Your task to perform on an android device: find snoozed emails in the gmail app Image 0: 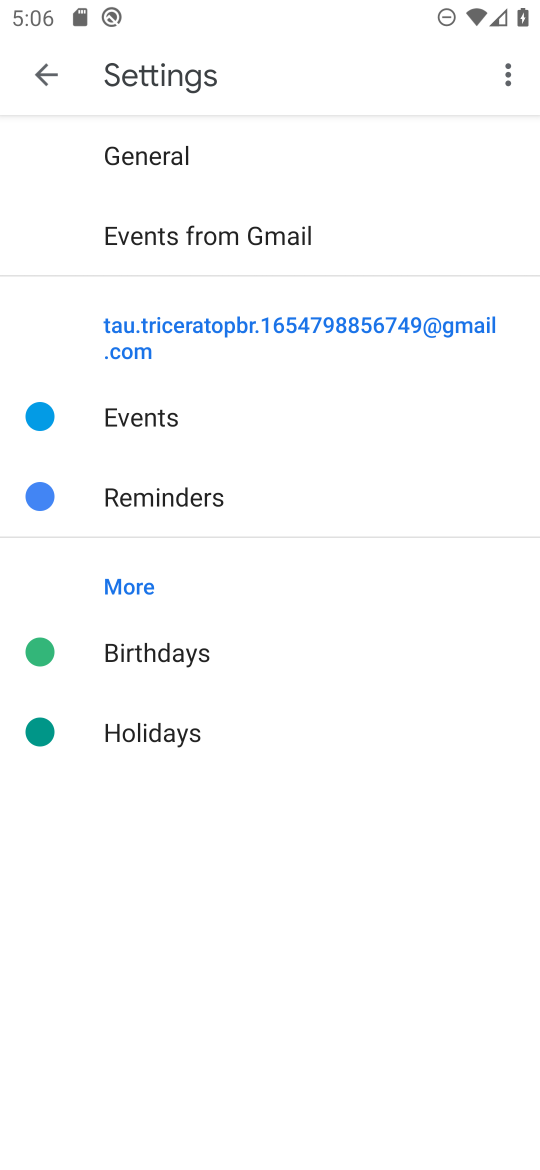
Step 0: press home button
Your task to perform on an android device: find snoozed emails in the gmail app Image 1: 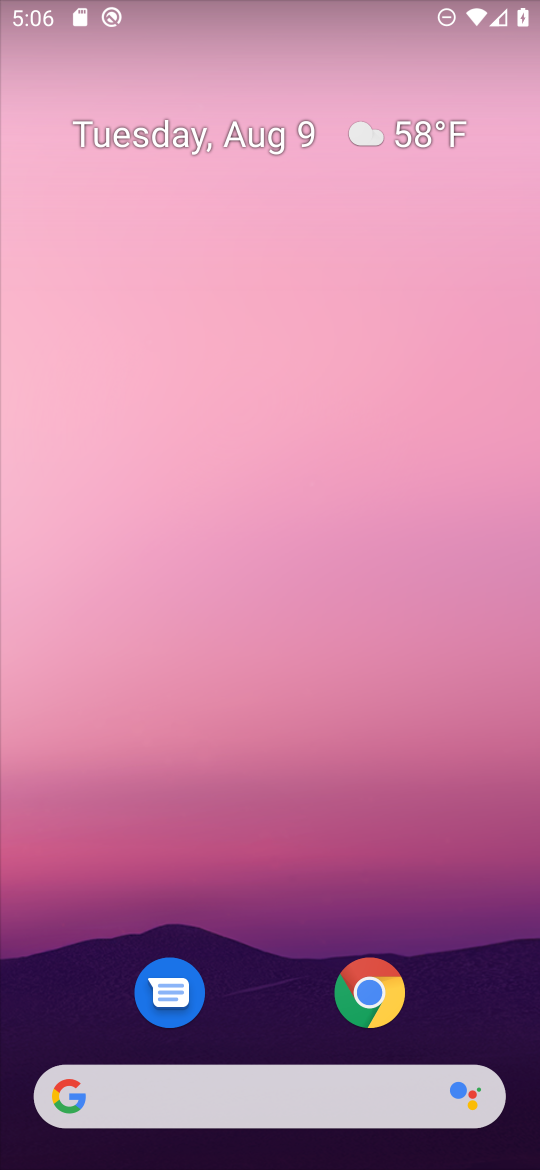
Step 1: press home button
Your task to perform on an android device: find snoozed emails in the gmail app Image 2: 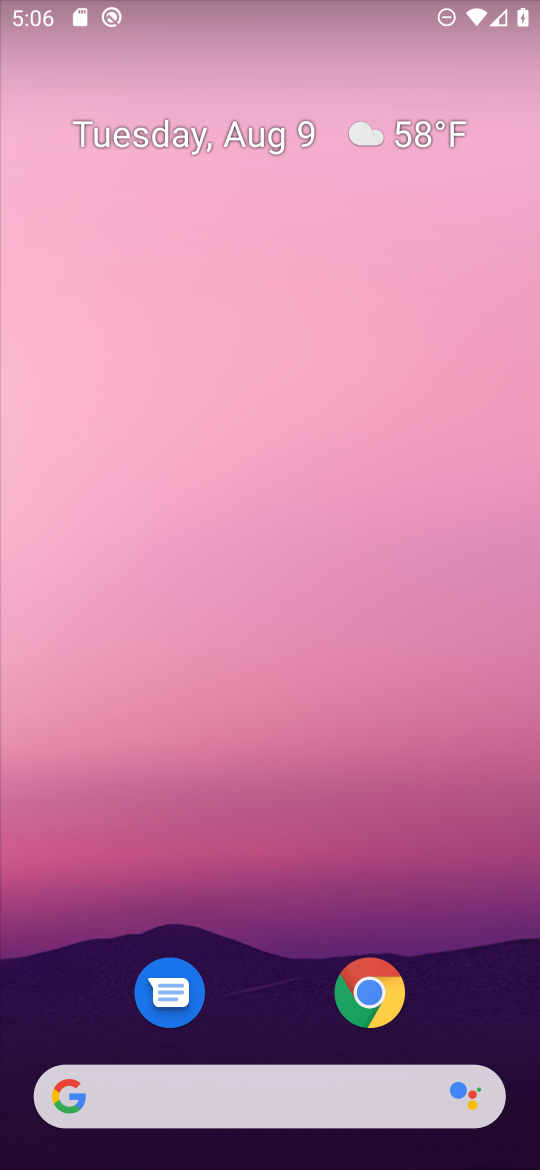
Step 2: drag from (417, 1080) to (412, 957)
Your task to perform on an android device: find snoozed emails in the gmail app Image 3: 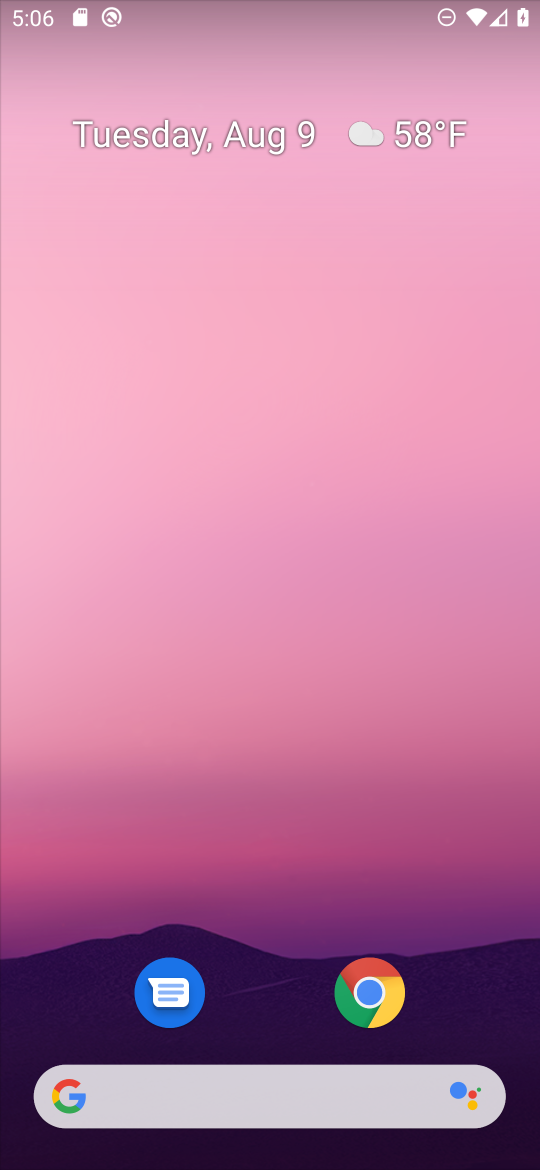
Step 3: drag from (302, 1078) to (263, 18)
Your task to perform on an android device: find snoozed emails in the gmail app Image 4: 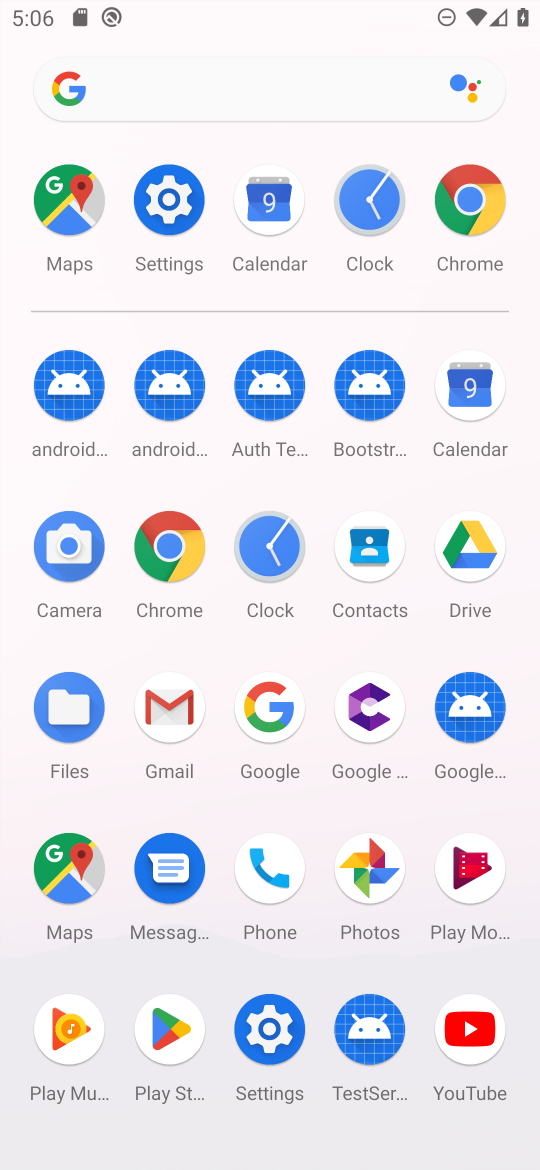
Step 4: drag from (233, 1069) to (504, 64)
Your task to perform on an android device: find snoozed emails in the gmail app Image 5: 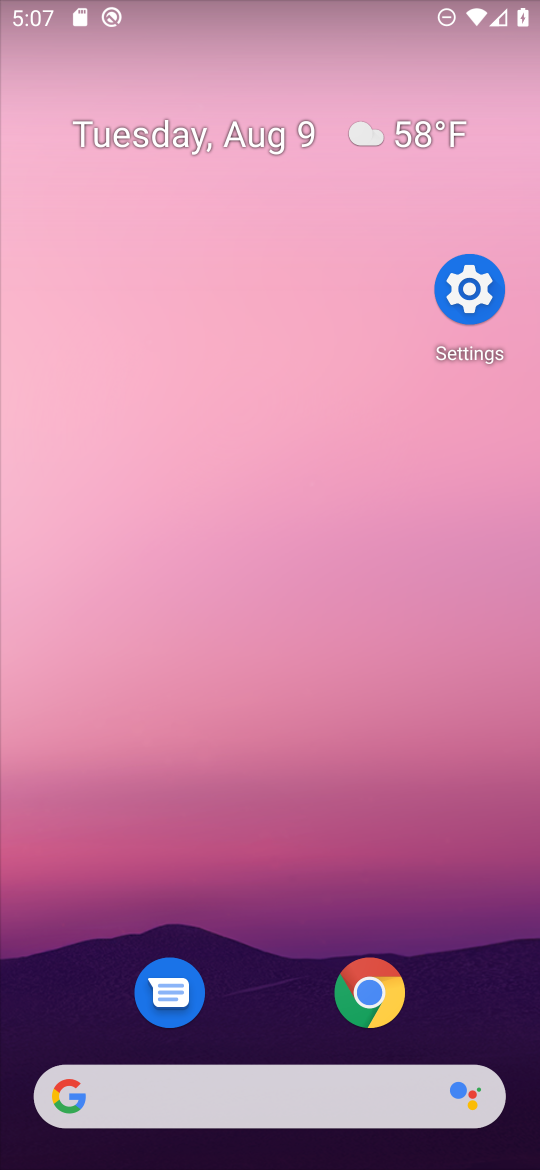
Step 5: drag from (369, 1082) to (287, 174)
Your task to perform on an android device: find snoozed emails in the gmail app Image 6: 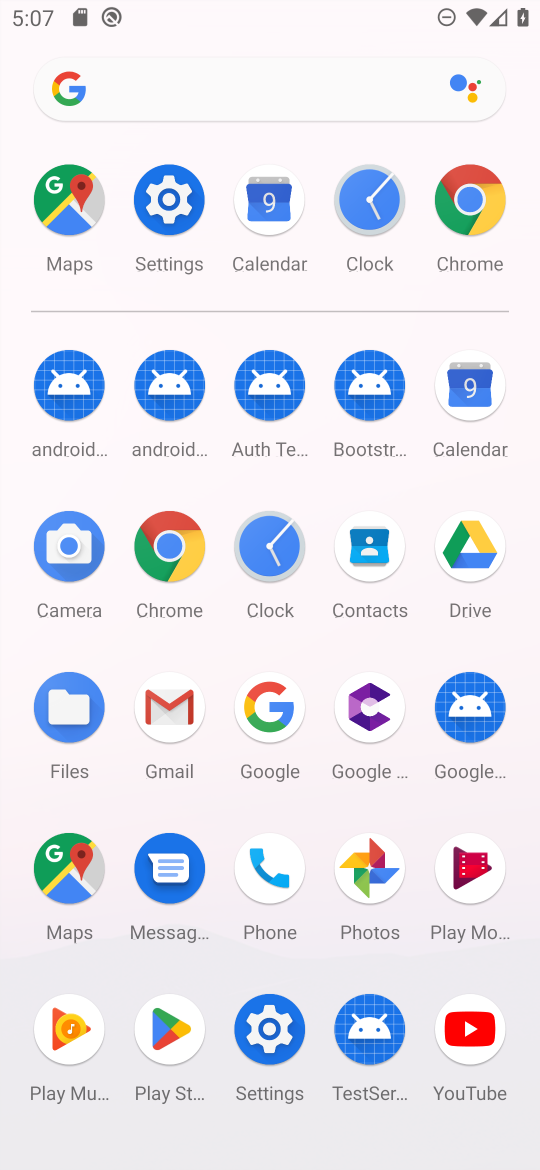
Step 6: click (164, 719)
Your task to perform on an android device: find snoozed emails in the gmail app Image 7: 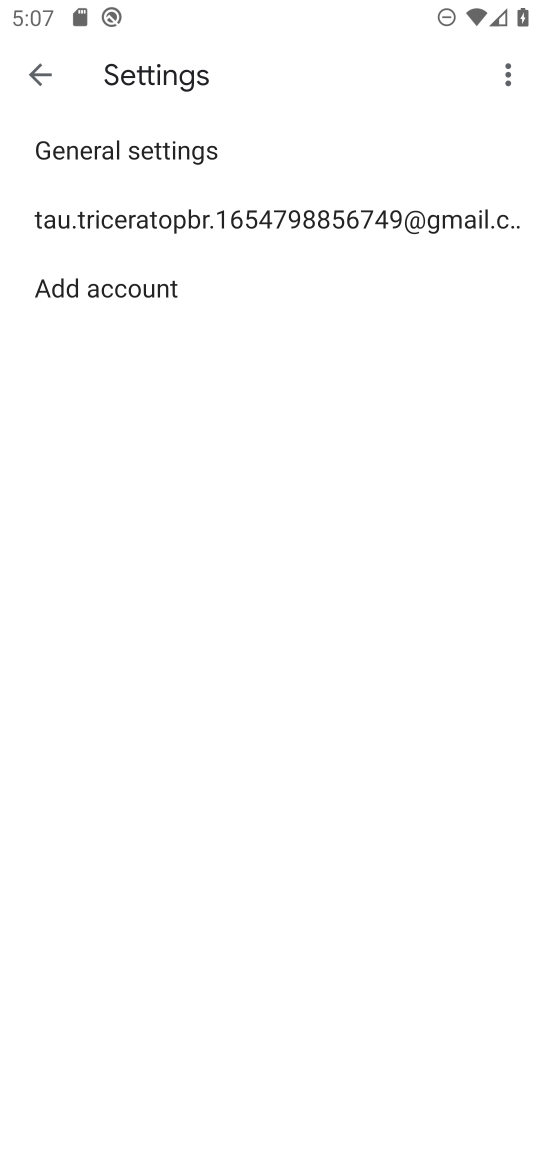
Step 7: click (236, 219)
Your task to perform on an android device: find snoozed emails in the gmail app Image 8: 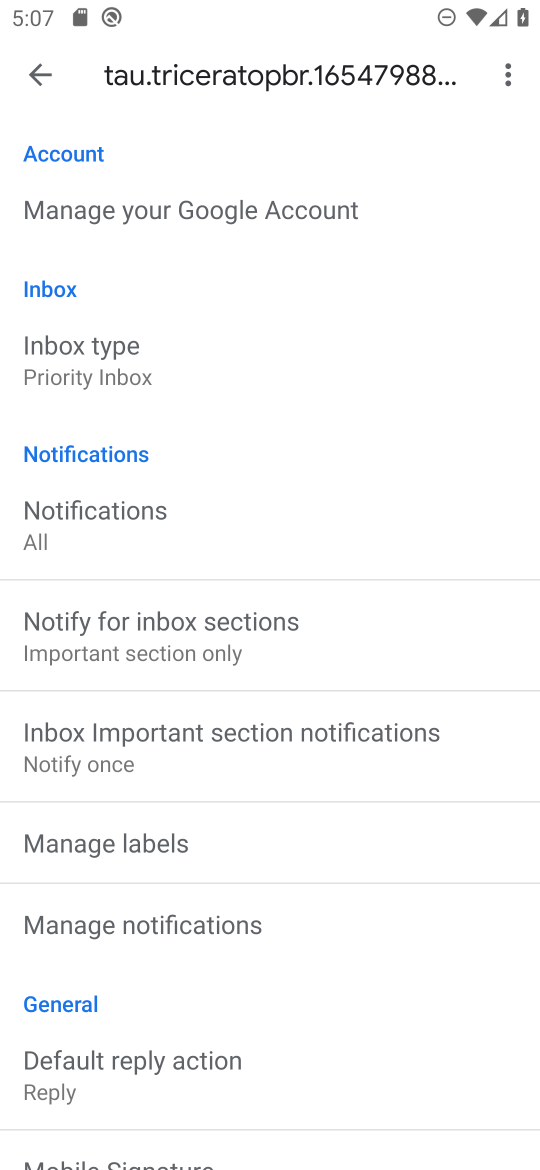
Step 8: press back button
Your task to perform on an android device: find snoozed emails in the gmail app Image 9: 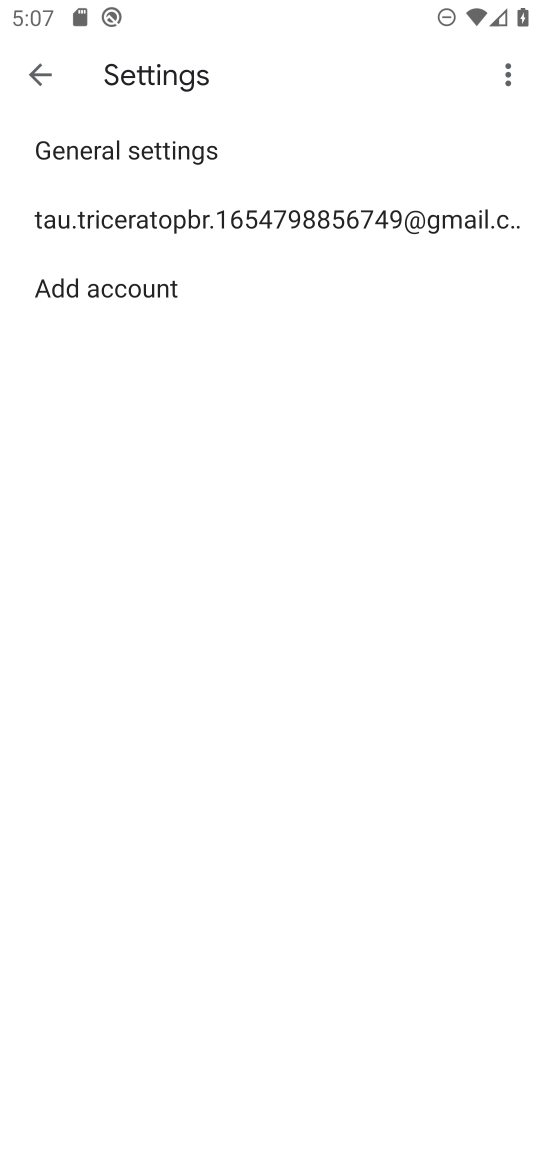
Step 9: press back button
Your task to perform on an android device: find snoozed emails in the gmail app Image 10: 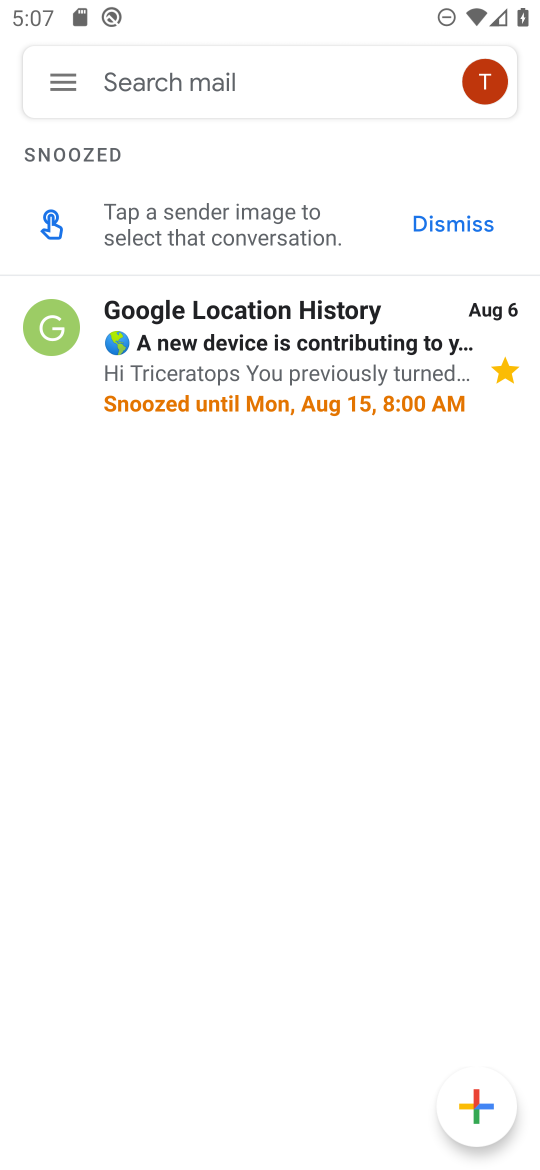
Step 10: click (61, 83)
Your task to perform on an android device: find snoozed emails in the gmail app Image 11: 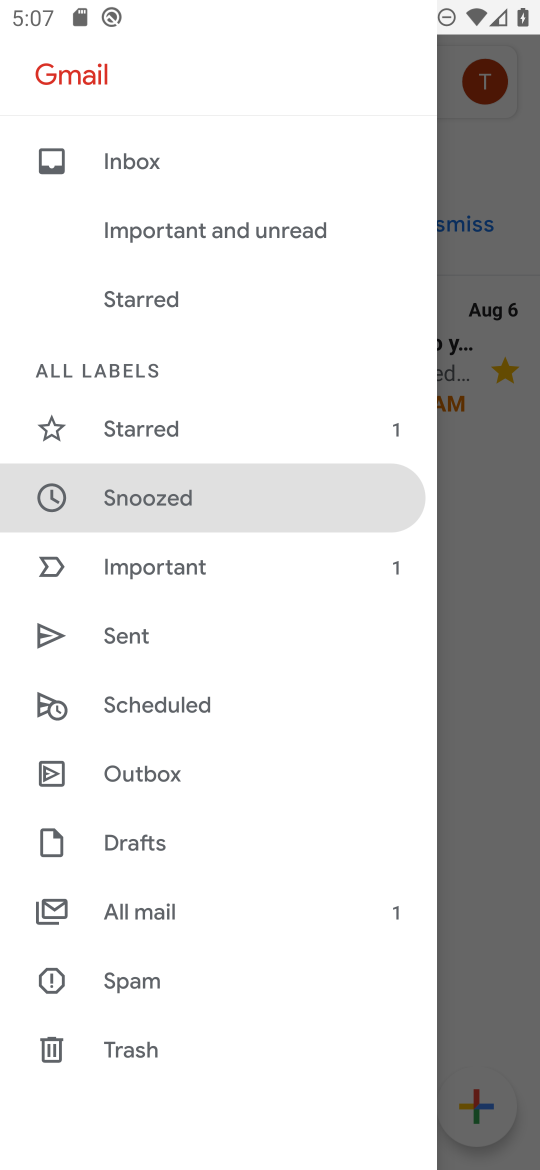
Step 11: click (184, 481)
Your task to perform on an android device: find snoozed emails in the gmail app Image 12: 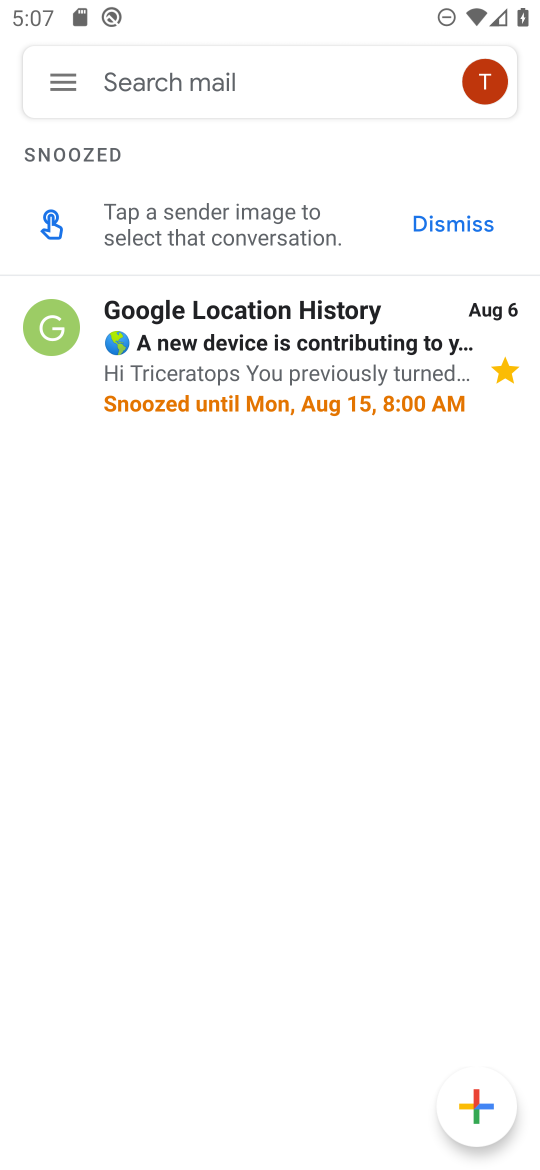
Step 12: task complete